Your task to perform on an android device: empty trash in the gmail app Image 0: 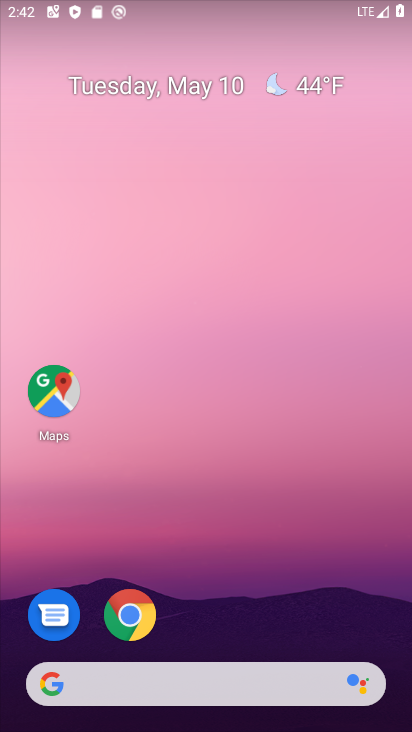
Step 0: drag from (238, 626) to (261, 46)
Your task to perform on an android device: empty trash in the gmail app Image 1: 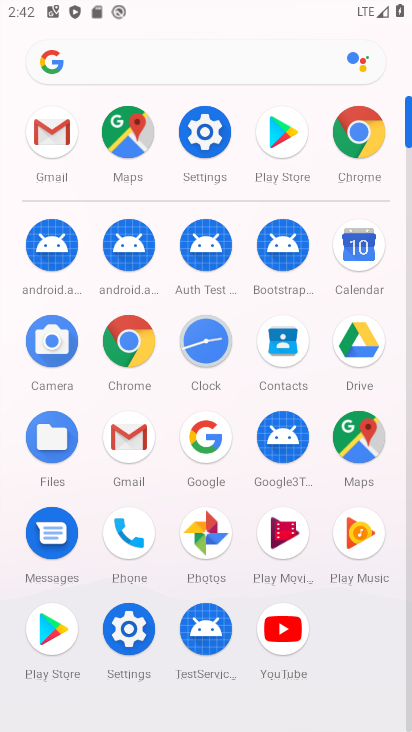
Step 1: click (72, 145)
Your task to perform on an android device: empty trash in the gmail app Image 2: 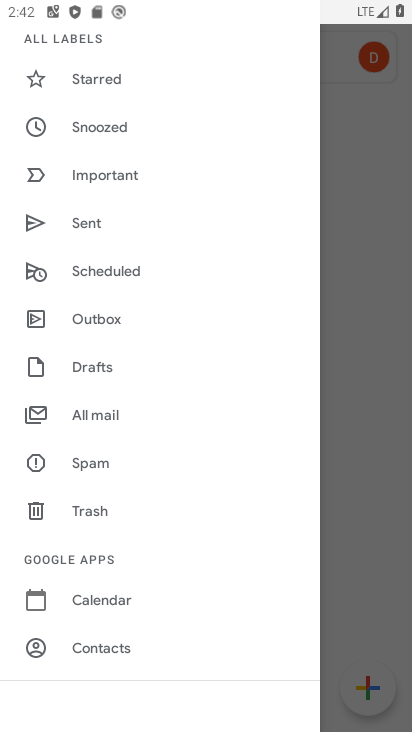
Step 2: drag from (129, 211) to (218, 589)
Your task to perform on an android device: empty trash in the gmail app Image 3: 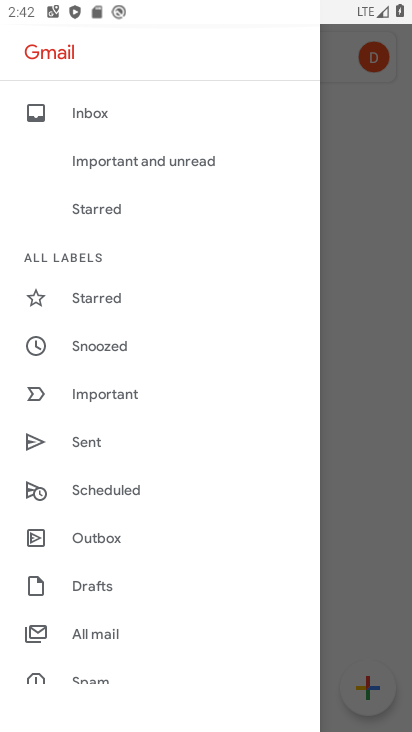
Step 3: drag from (203, 578) to (185, 180)
Your task to perform on an android device: empty trash in the gmail app Image 4: 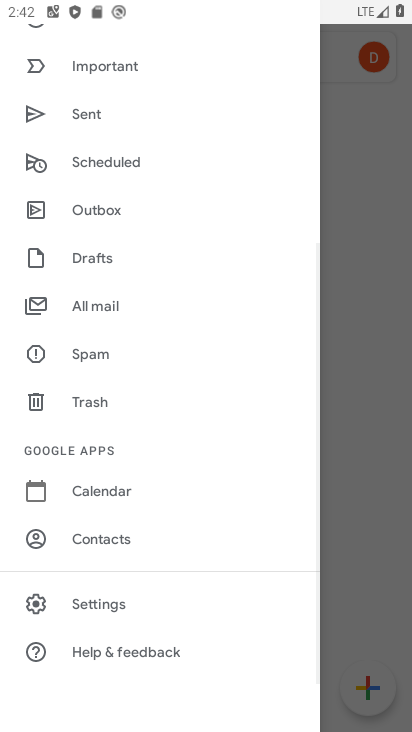
Step 4: click (127, 399)
Your task to perform on an android device: empty trash in the gmail app Image 5: 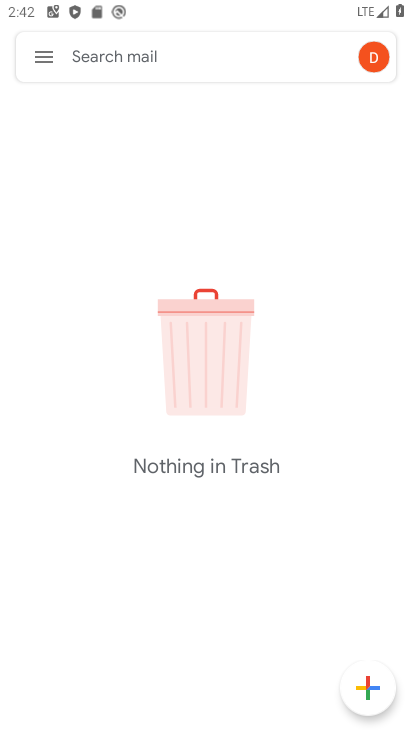
Step 5: task complete